Your task to perform on an android device: turn off notifications in google photos Image 0: 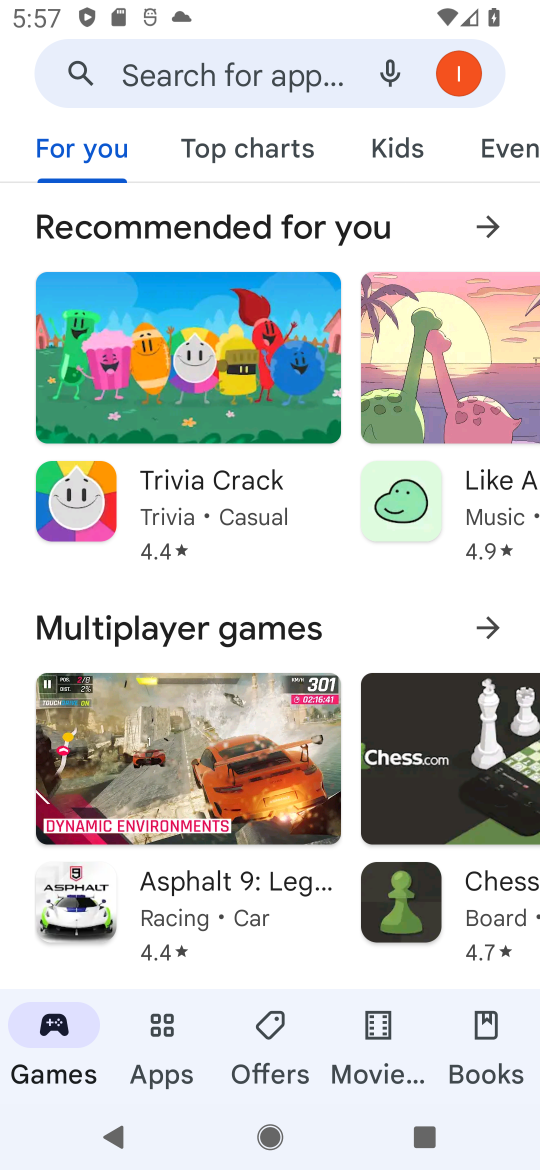
Step 0: press home button
Your task to perform on an android device: turn off notifications in google photos Image 1: 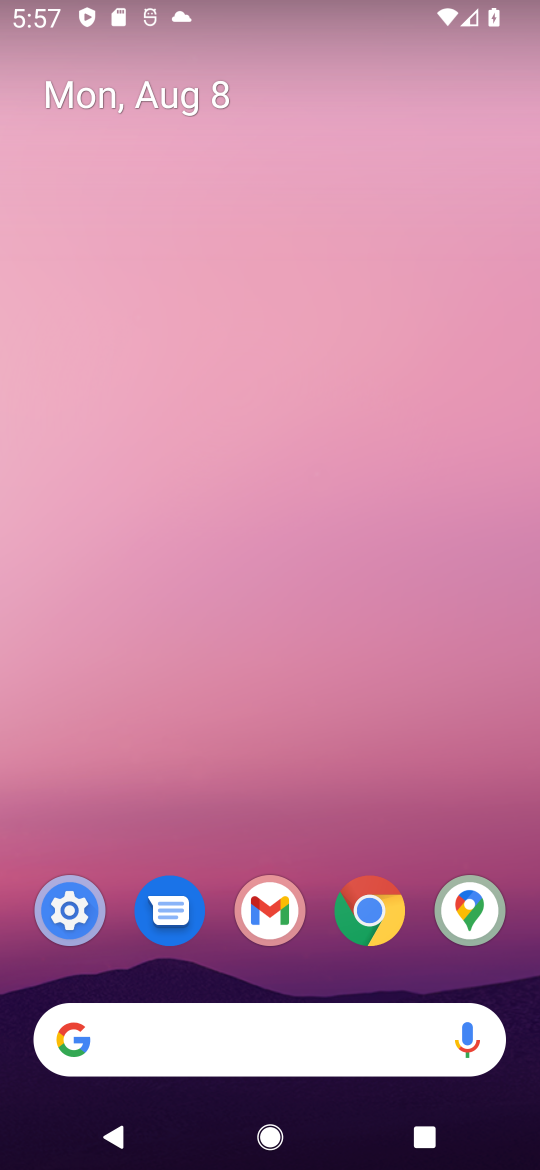
Step 1: drag from (239, 1038) to (444, 283)
Your task to perform on an android device: turn off notifications in google photos Image 2: 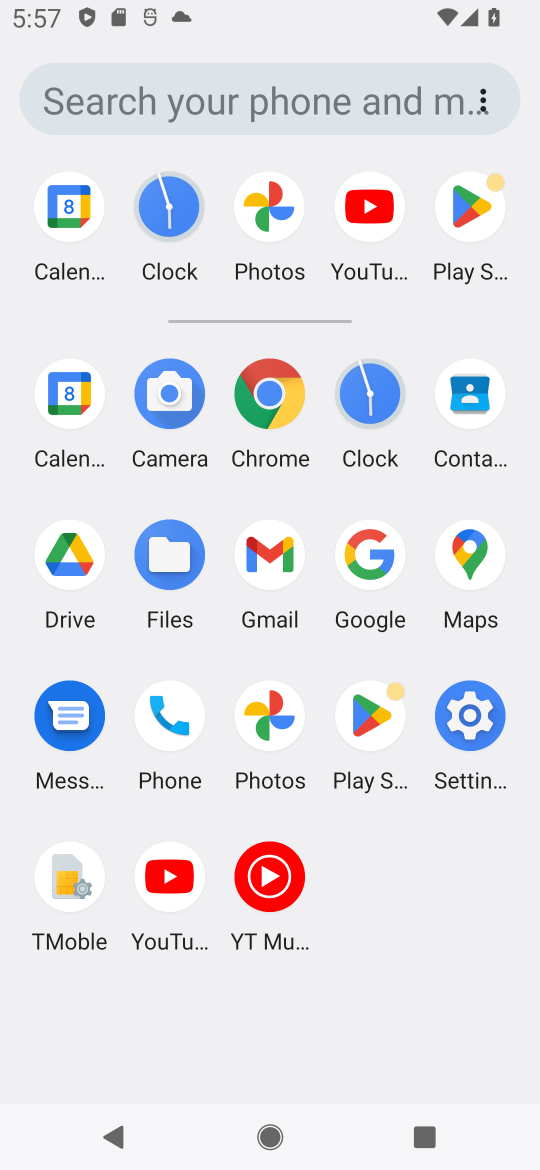
Step 2: click (274, 209)
Your task to perform on an android device: turn off notifications in google photos Image 3: 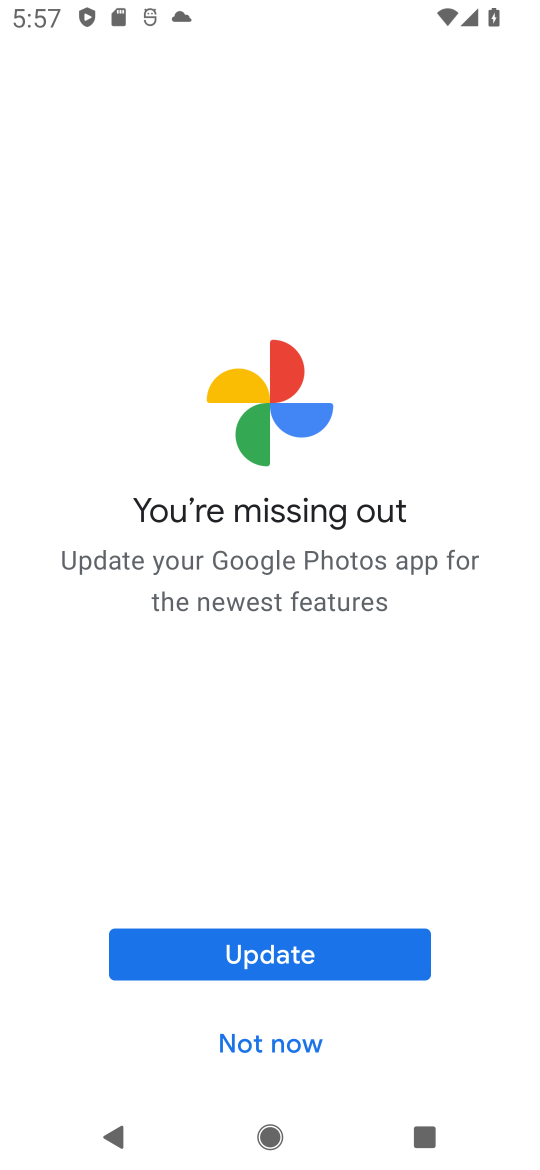
Step 3: click (307, 957)
Your task to perform on an android device: turn off notifications in google photos Image 4: 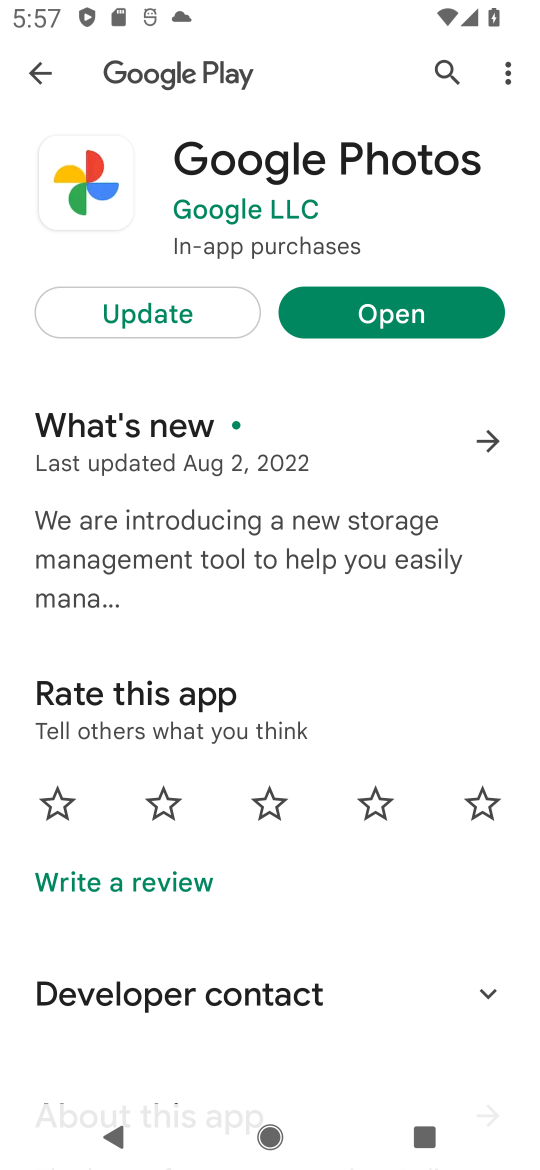
Step 4: click (154, 323)
Your task to perform on an android device: turn off notifications in google photos Image 5: 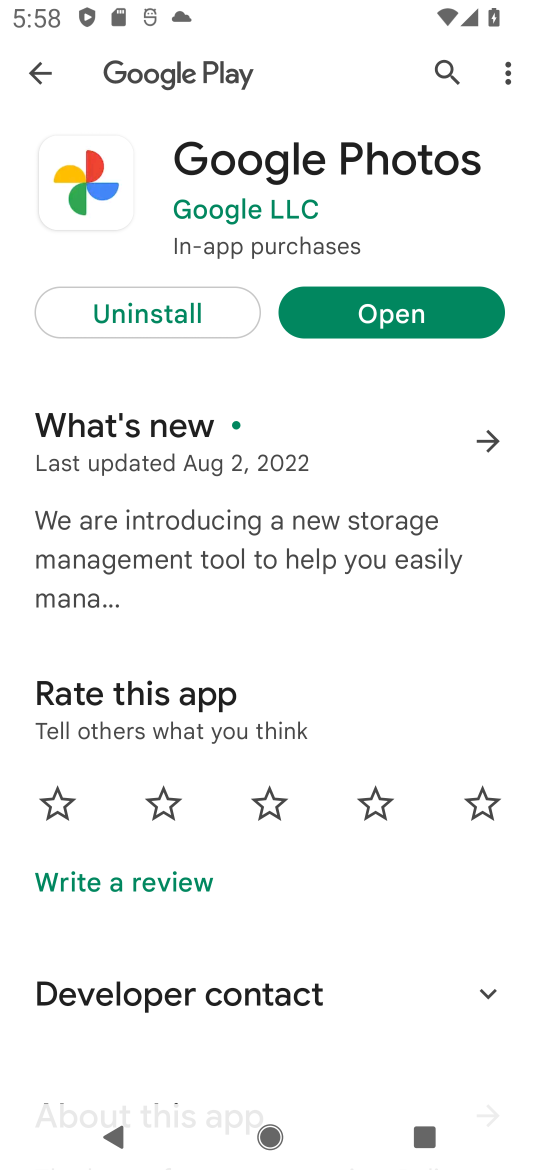
Step 5: click (390, 319)
Your task to perform on an android device: turn off notifications in google photos Image 6: 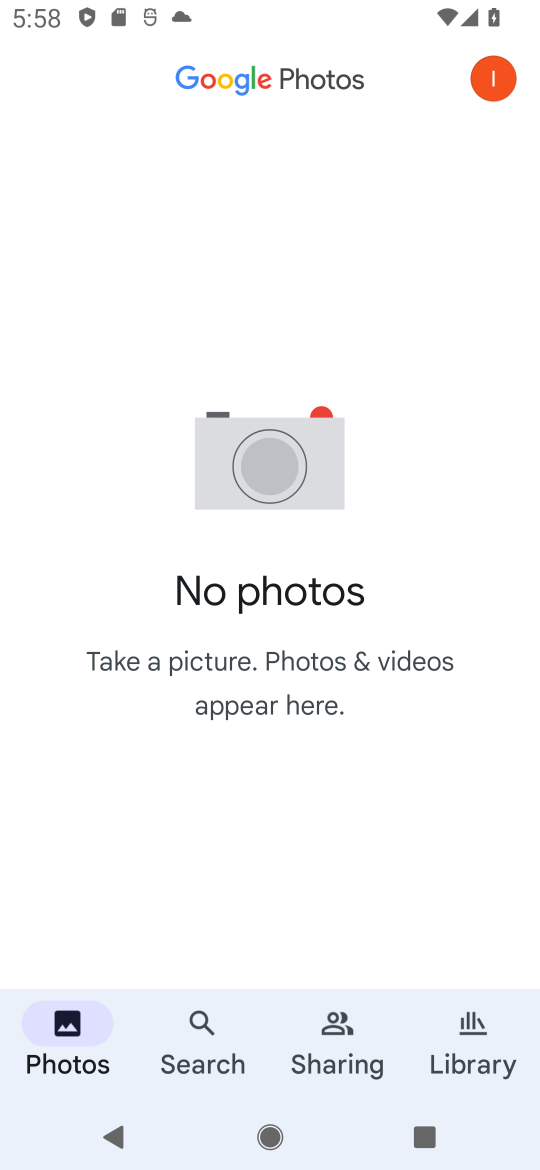
Step 6: click (496, 84)
Your task to perform on an android device: turn off notifications in google photos Image 7: 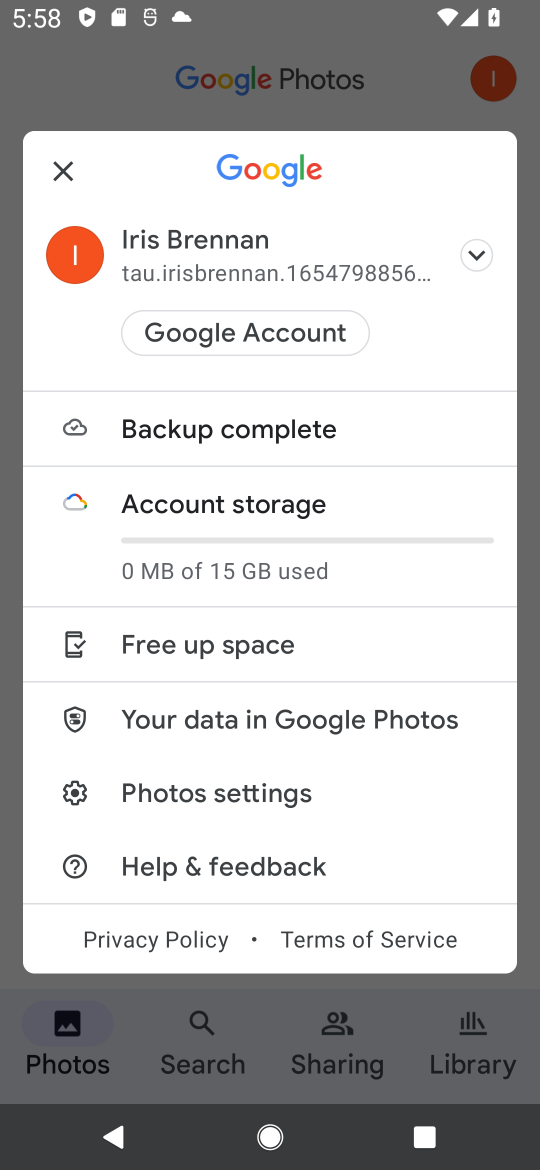
Step 7: click (264, 792)
Your task to perform on an android device: turn off notifications in google photos Image 8: 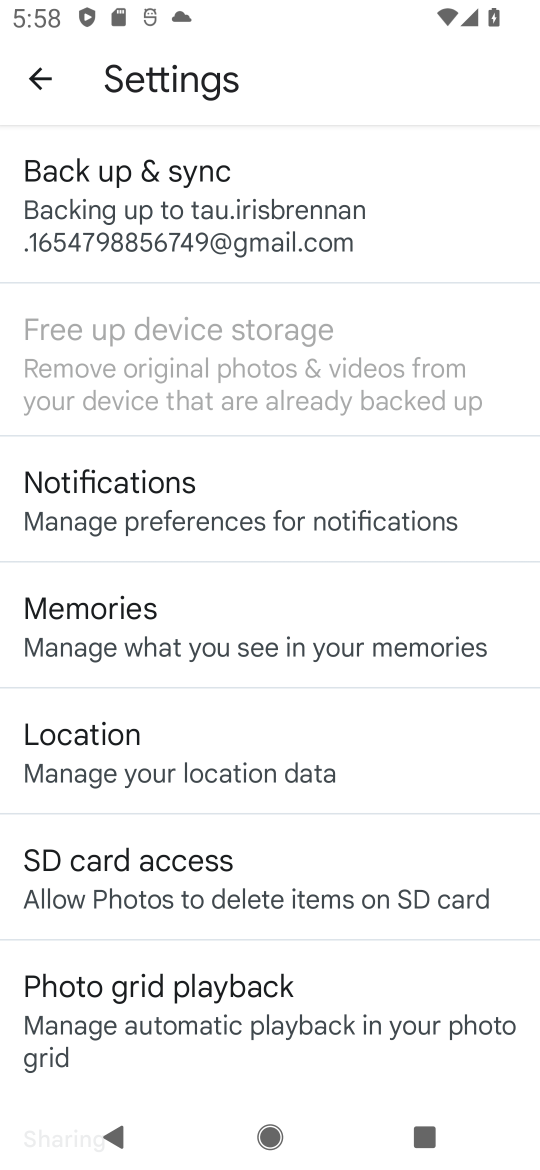
Step 8: click (143, 516)
Your task to perform on an android device: turn off notifications in google photos Image 9: 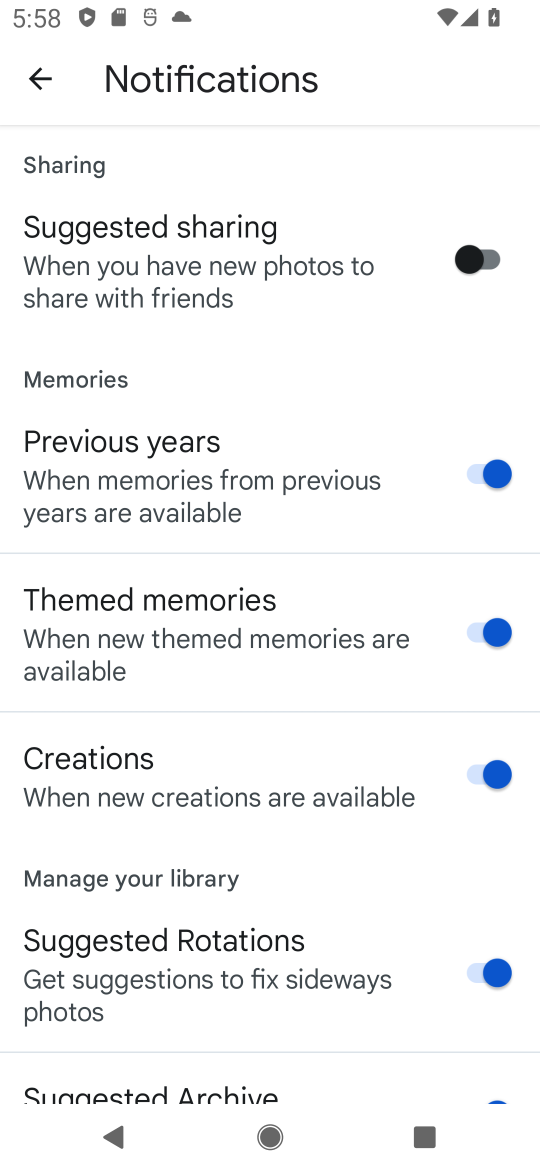
Step 9: drag from (237, 746) to (322, 484)
Your task to perform on an android device: turn off notifications in google photos Image 10: 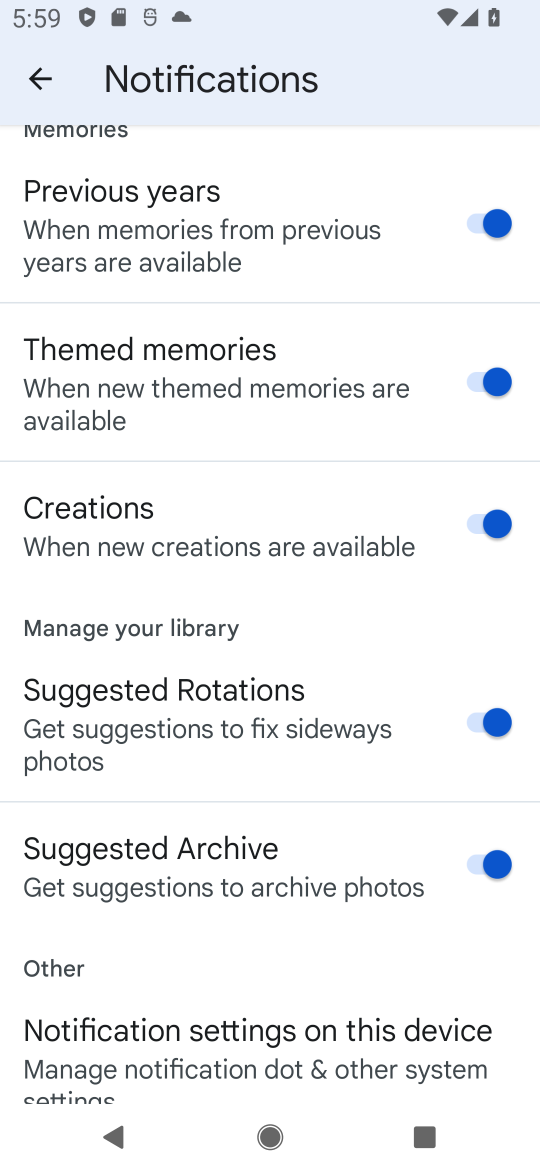
Step 10: drag from (193, 777) to (241, 578)
Your task to perform on an android device: turn off notifications in google photos Image 11: 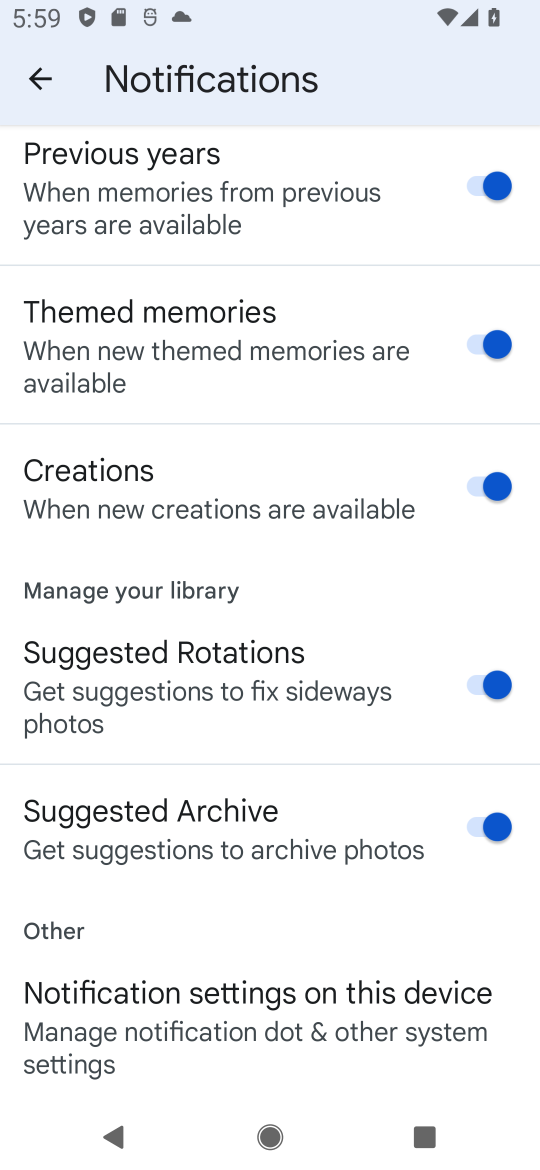
Step 11: click (209, 1028)
Your task to perform on an android device: turn off notifications in google photos Image 12: 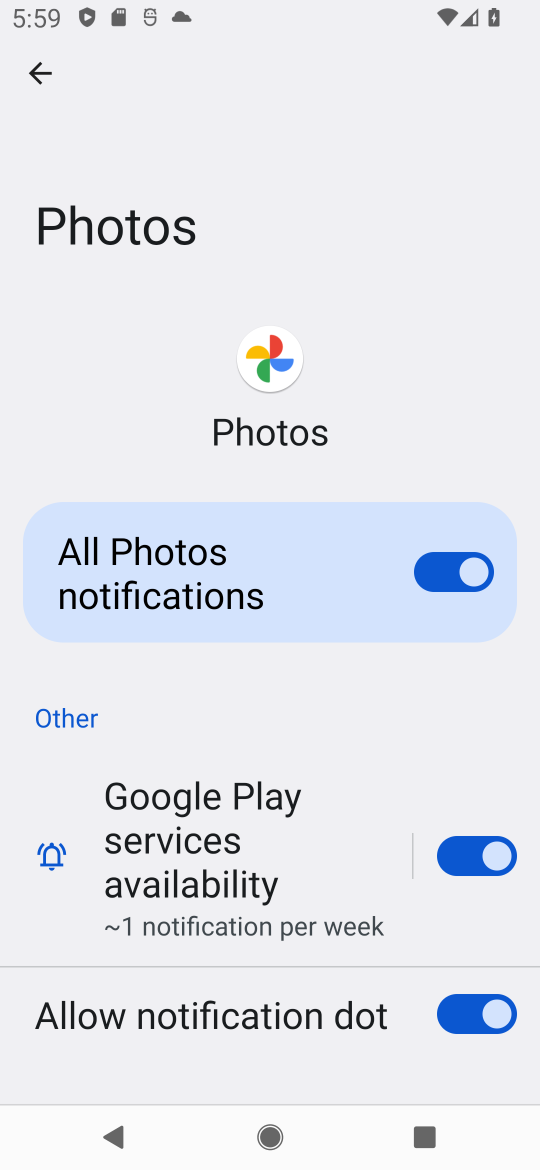
Step 12: click (417, 560)
Your task to perform on an android device: turn off notifications in google photos Image 13: 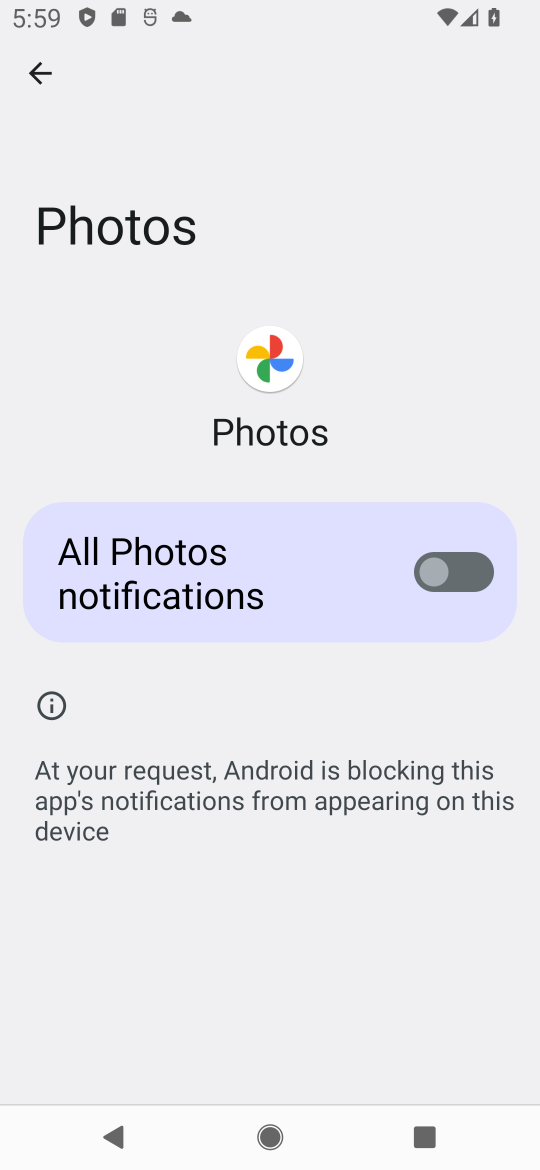
Step 13: task complete